Your task to perform on an android device: Open the calendar and show me this week's events? Image 0: 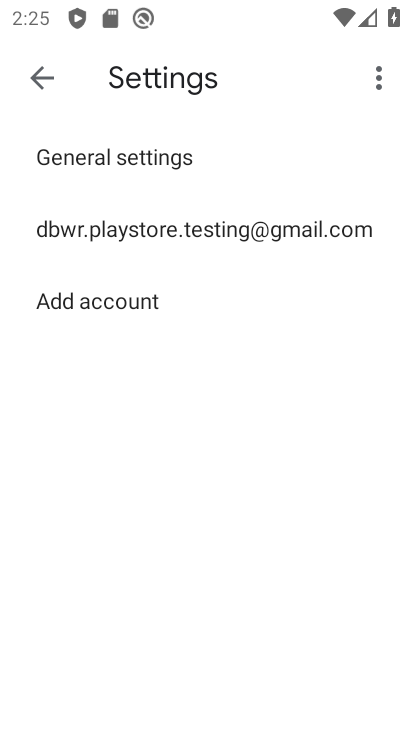
Step 0: press home button
Your task to perform on an android device: Open the calendar and show me this week's events? Image 1: 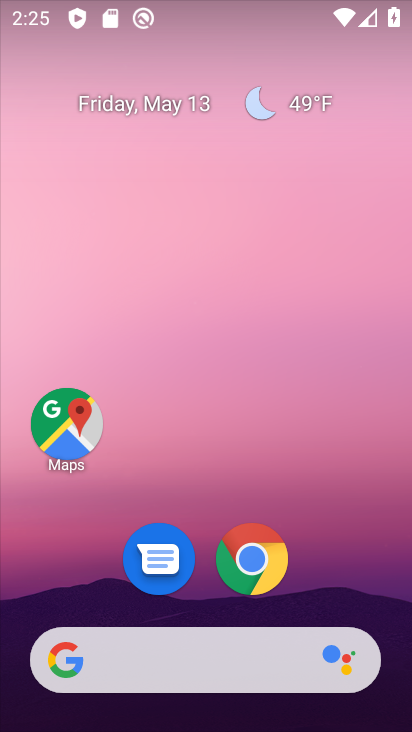
Step 1: drag from (399, 603) to (264, 4)
Your task to perform on an android device: Open the calendar and show me this week's events? Image 2: 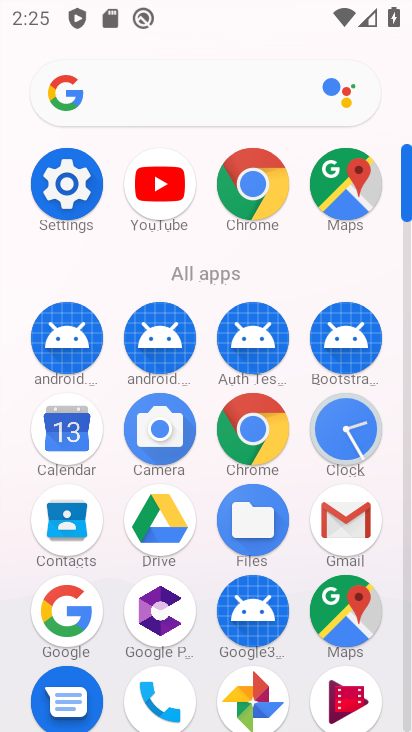
Step 2: click (407, 701)
Your task to perform on an android device: Open the calendar and show me this week's events? Image 3: 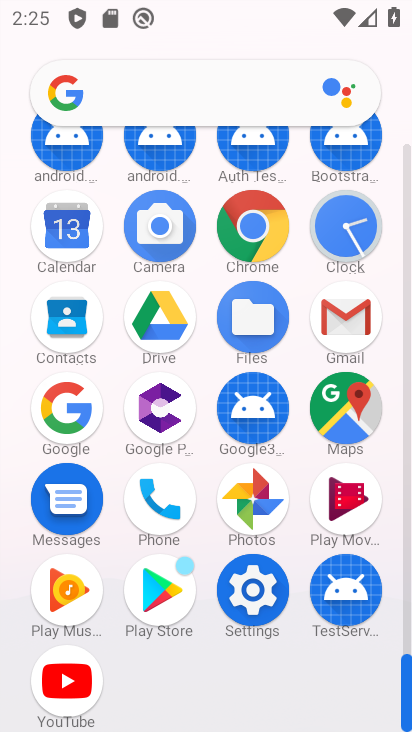
Step 3: click (66, 225)
Your task to perform on an android device: Open the calendar and show me this week's events? Image 4: 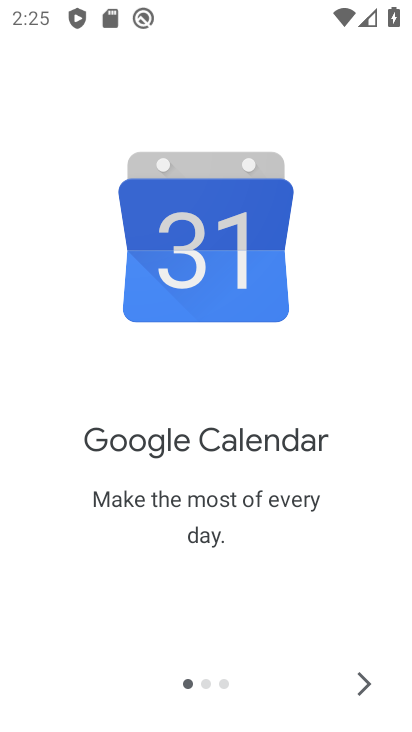
Step 4: click (362, 675)
Your task to perform on an android device: Open the calendar and show me this week's events? Image 5: 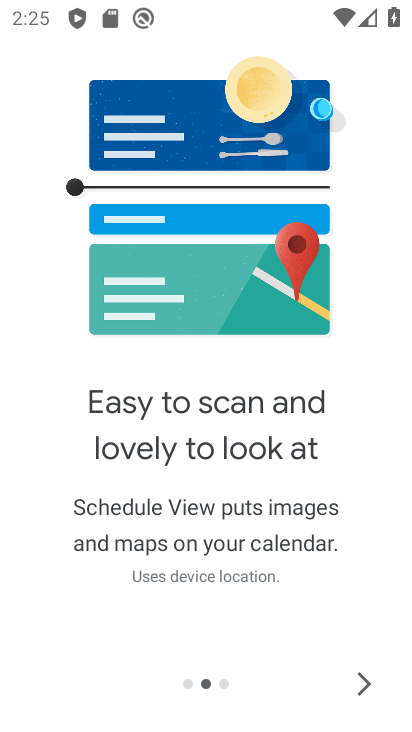
Step 5: click (363, 678)
Your task to perform on an android device: Open the calendar and show me this week's events? Image 6: 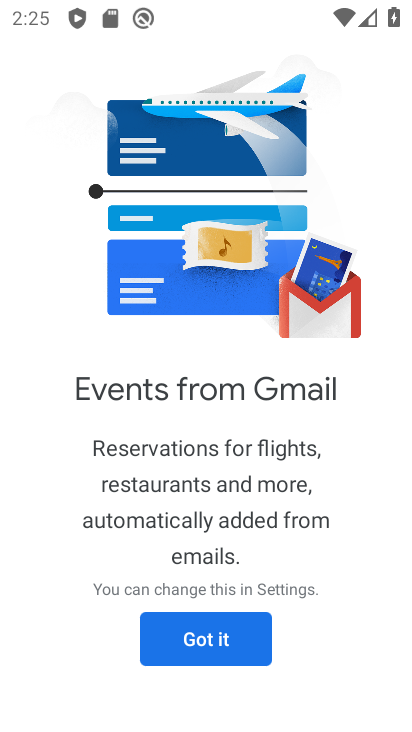
Step 6: click (200, 636)
Your task to perform on an android device: Open the calendar and show me this week's events? Image 7: 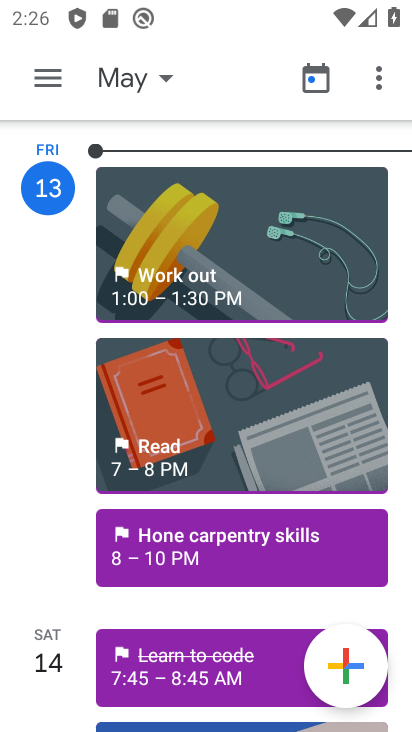
Step 7: click (41, 73)
Your task to perform on an android device: Open the calendar and show me this week's events? Image 8: 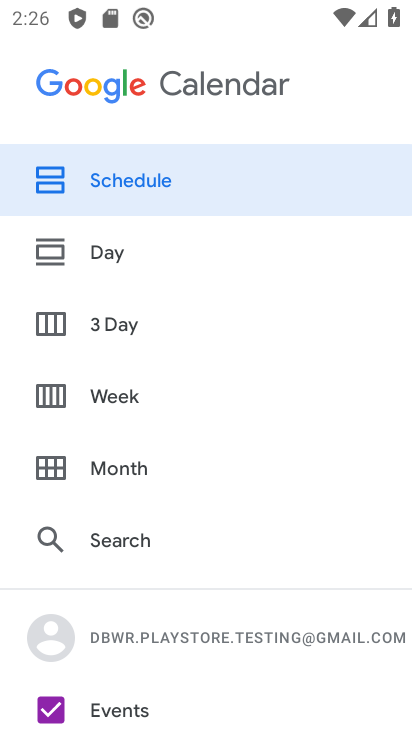
Step 8: click (112, 391)
Your task to perform on an android device: Open the calendar and show me this week's events? Image 9: 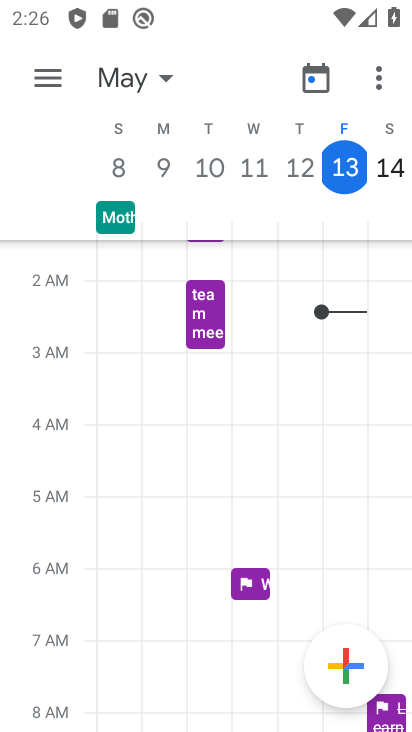
Step 9: task complete